Your task to perform on an android device: Open eBay Image 0: 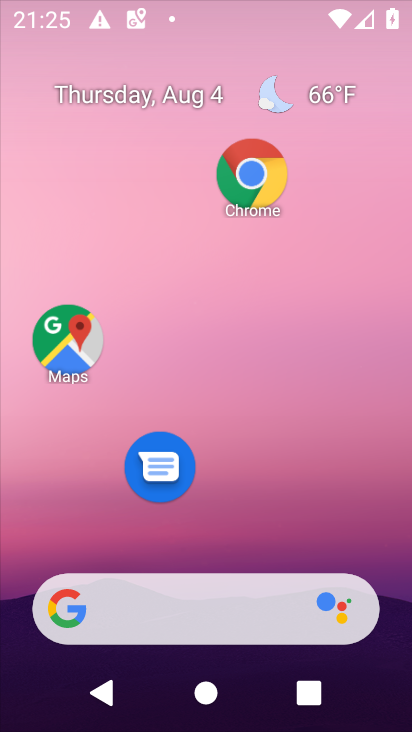
Step 0: press home button
Your task to perform on an android device: Open eBay Image 1: 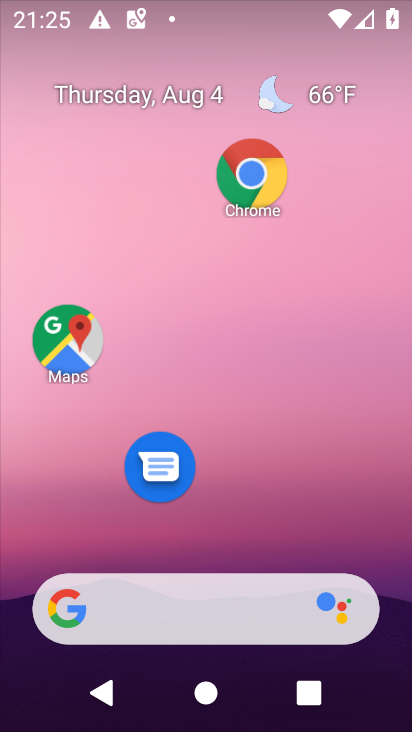
Step 1: click (252, 174)
Your task to perform on an android device: Open eBay Image 2: 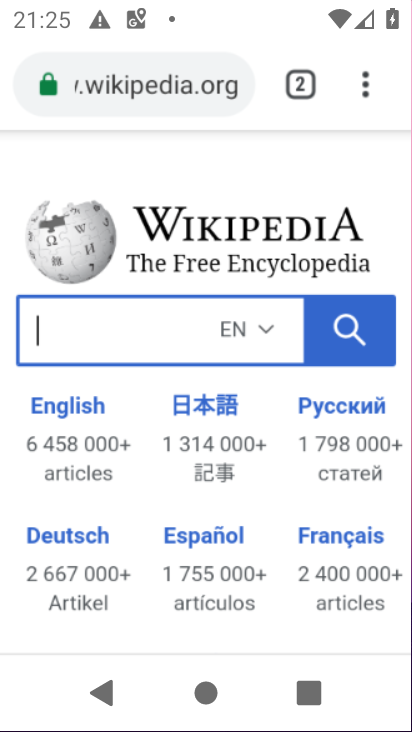
Step 2: click (252, 174)
Your task to perform on an android device: Open eBay Image 3: 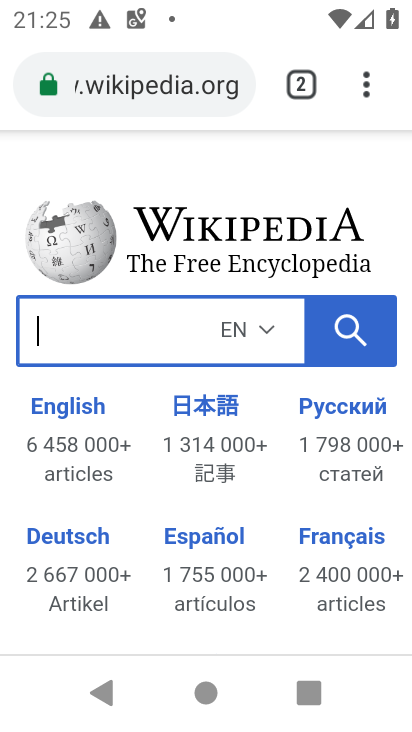
Step 3: click (200, 82)
Your task to perform on an android device: Open eBay Image 4: 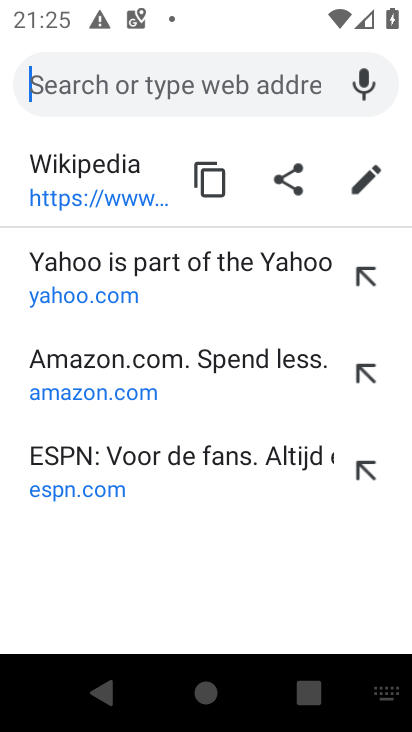
Step 4: type "eBay"
Your task to perform on an android device: Open eBay Image 5: 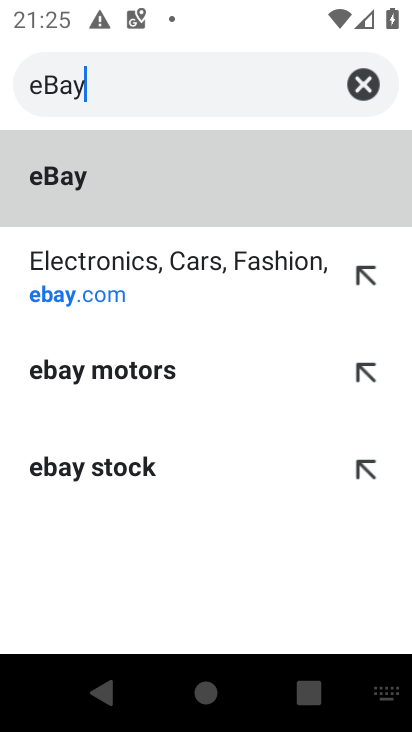
Step 5: click (54, 293)
Your task to perform on an android device: Open eBay Image 6: 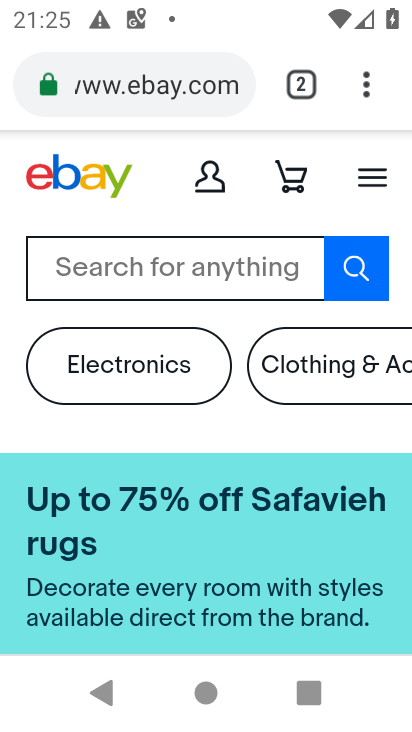
Step 6: task complete